Your task to perform on an android device: turn pop-ups on in chrome Image 0: 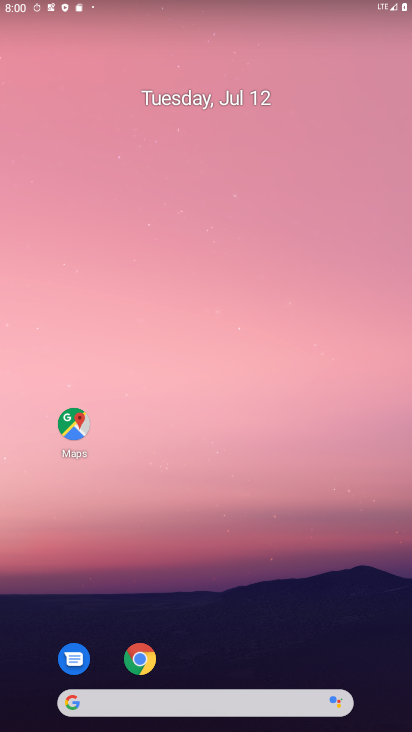
Step 0: drag from (242, 88) to (203, 18)
Your task to perform on an android device: turn pop-ups on in chrome Image 1: 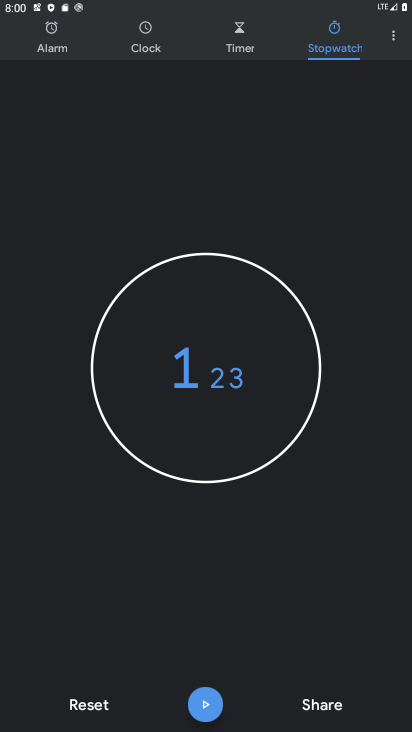
Step 1: press home button
Your task to perform on an android device: turn pop-ups on in chrome Image 2: 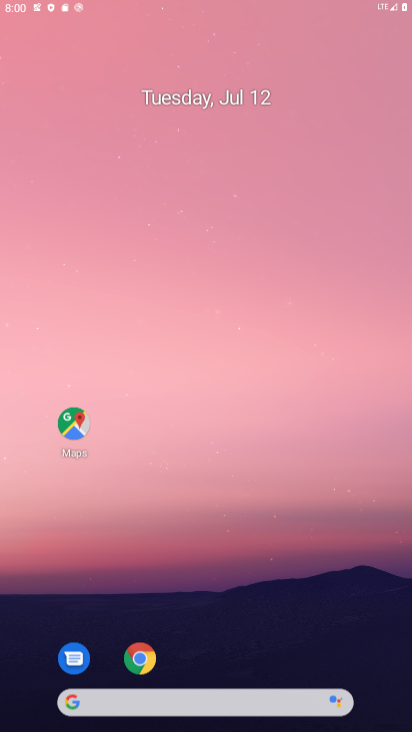
Step 2: drag from (337, 674) to (225, 13)
Your task to perform on an android device: turn pop-ups on in chrome Image 3: 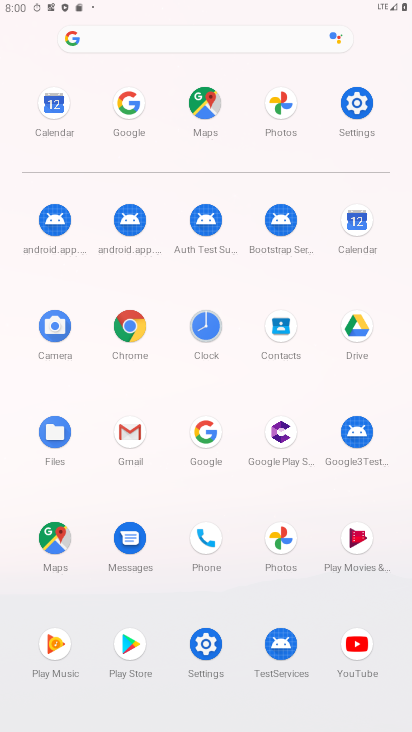
Step 3: click (136, 332)
Your task to perform on an android device: turn pop-ups on in chrome Image 4: 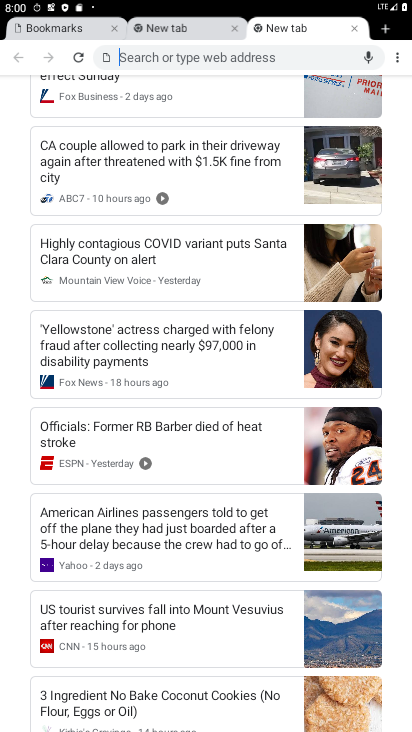
Step 4: press home button
Your task to perform on an android device: turn pop-ups on in chrome Image 5: 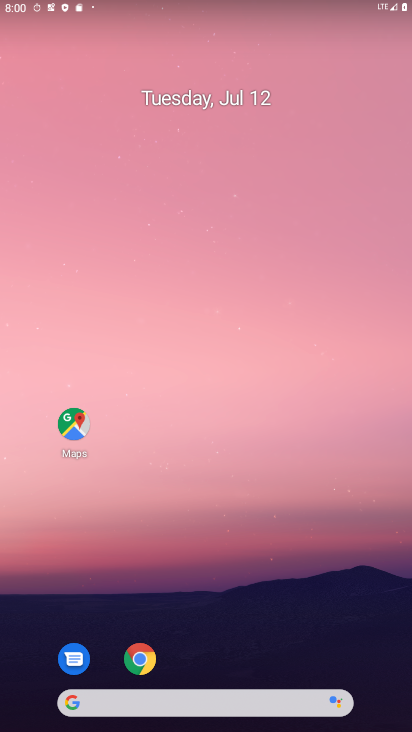
Step 5: click (141, 652)
Your task to perform on an android device: turn pop-ups on in chrome Image 6: 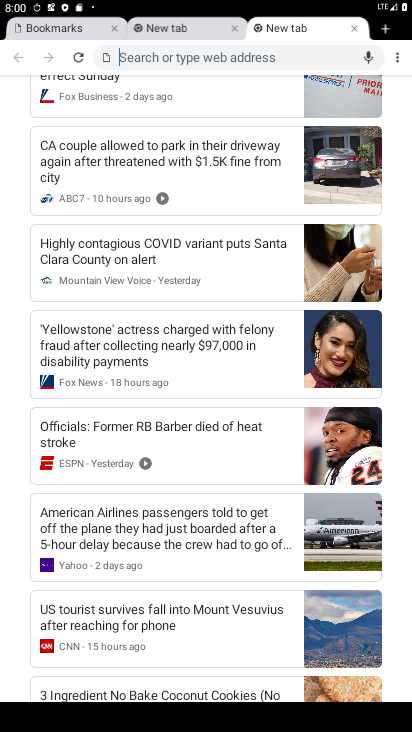
Step 6: click (396, 52)
Your task to perform on an android device: turn pop-ups on in chrome Image 7: 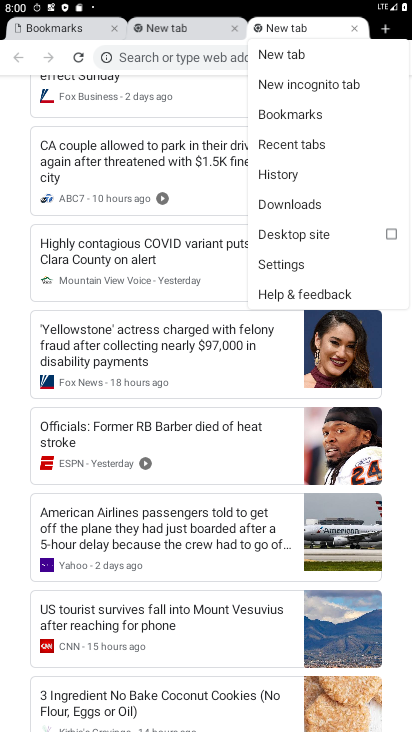
Step 7: click (273, 257)
Your task to perform on an android device: turn pop-ups on in chrome Image 8: 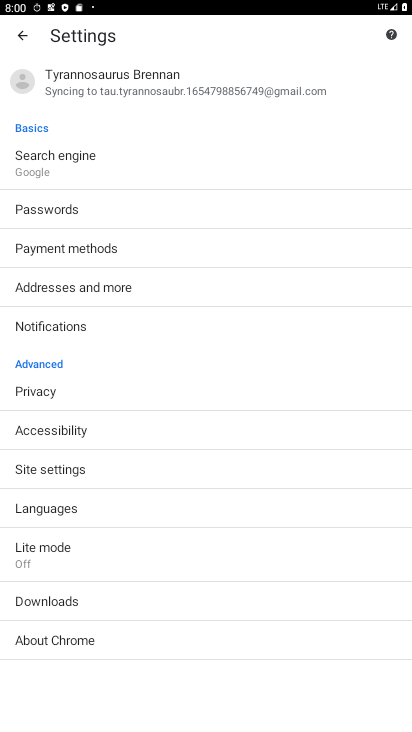
Step 8: click (102, 473)
Your task to perform on an android device: turn pop-ups on in chrome Image 9: 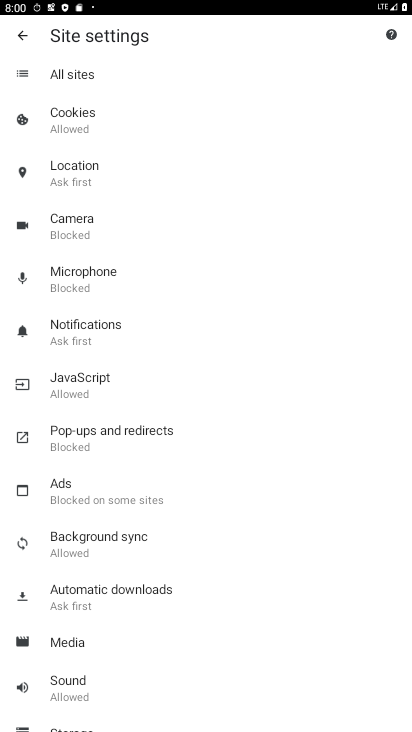
Step 9: click (113, 442)
Your task to perform on an android device: turn pop-ups on in chrome Image 10: 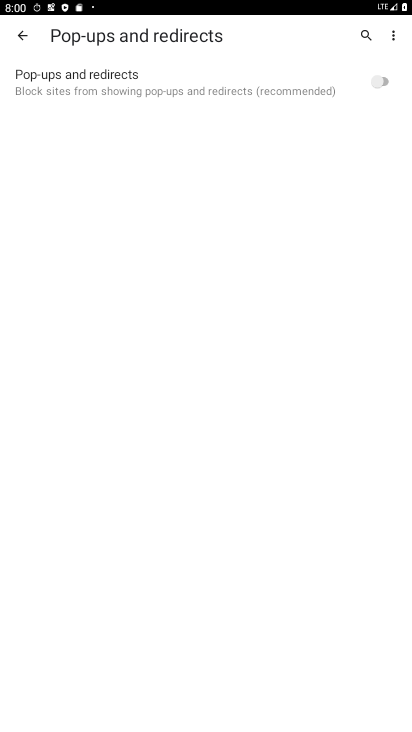
Step 10: click (366, 89)
Your task to perform on an android device: turn pop-ups on in chrome Image 11: 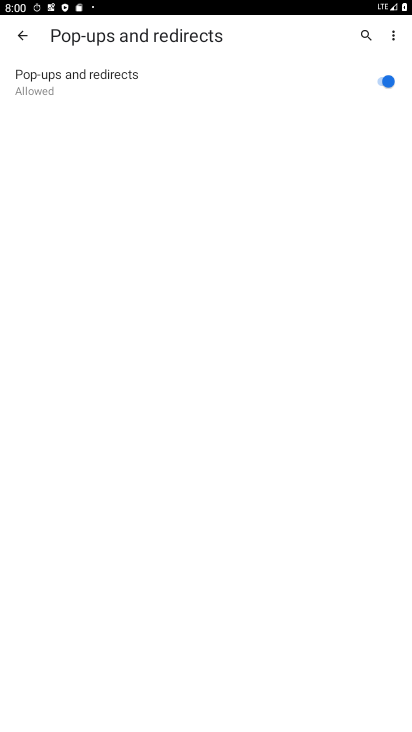
Step 11: task complete